Your task to perform on an android device: turn on data saver in the chrome app Image 0: 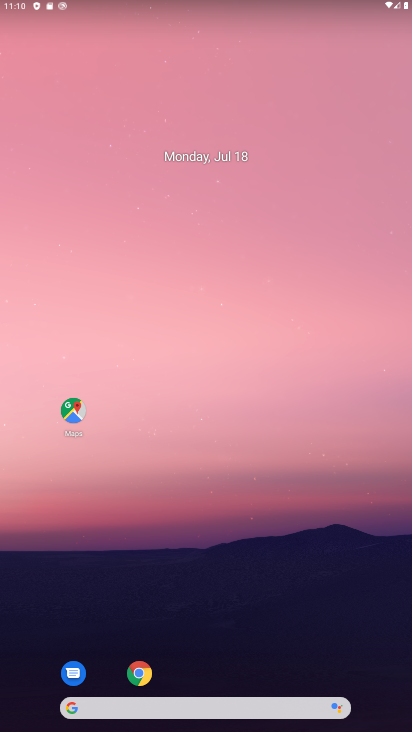
Step 0: press home button
Your task to perform on an android device: turn on data saver in the chrome app Image 1: 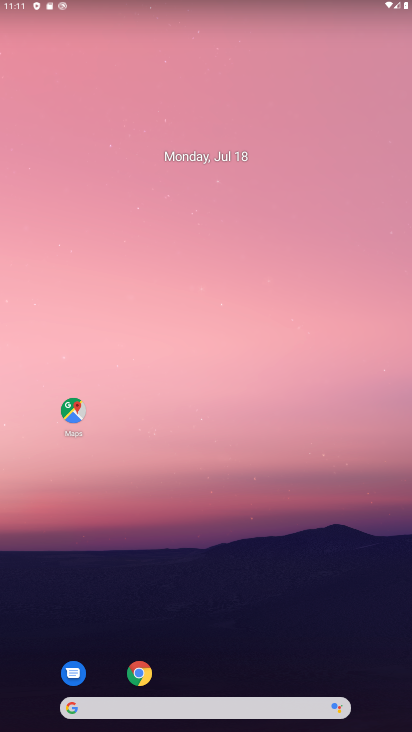
Step 1: click (137, 671)
Your task to perform on an android device: turn on data saver in the chrome app Image 2: 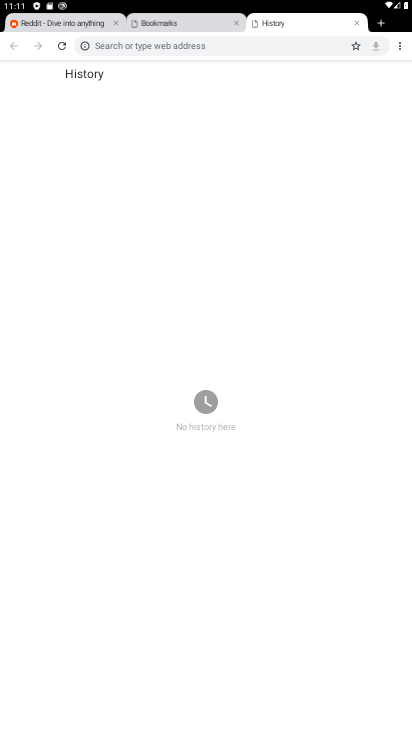
Step 2: click (399, 42)
Your task to perform on an android device: turn on data saver in the chrome app Image 3: 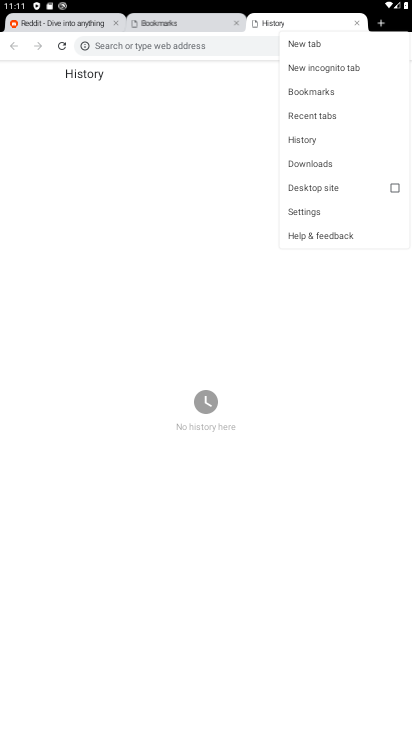
Step 3: click (326, 212)
Your task to perform on an android device: turn on data saver in the chrome app Image 4: 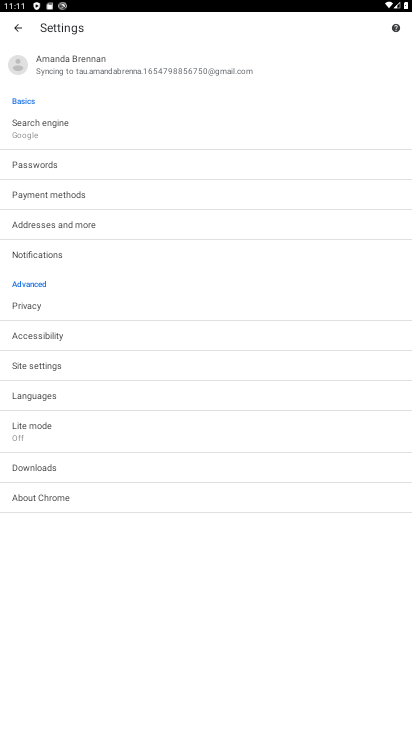
Step 4: click (39, 435)
Your task to perform on an android device: turn on data saver in the chrome app Image 5: 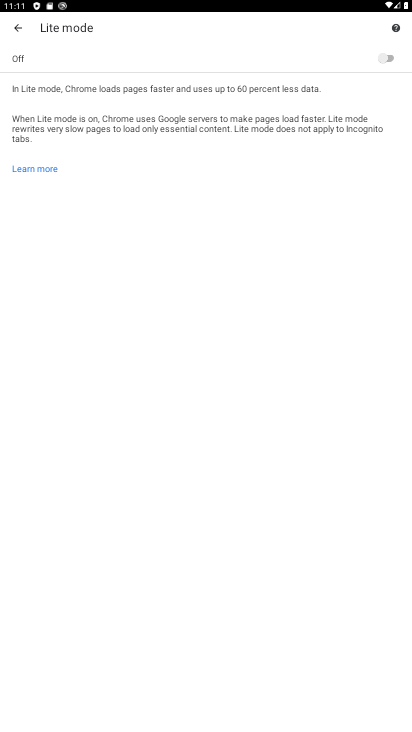
Step 5: click (390, 58)
Your task to perform on an android device: turn on data saver in the chrome app Image 6: 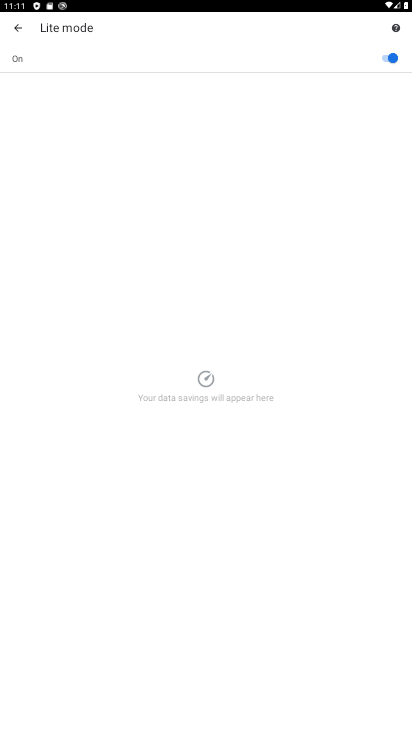
Step 6: task complete